Your task to perform on an android device: What's on my calendar today? Image 0: 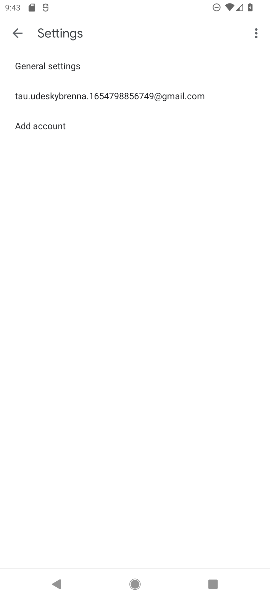
Step 0: drag from (143, 303) to (134, 120)
Your task to perform on an android device: What's on my calendar today? Image 1: 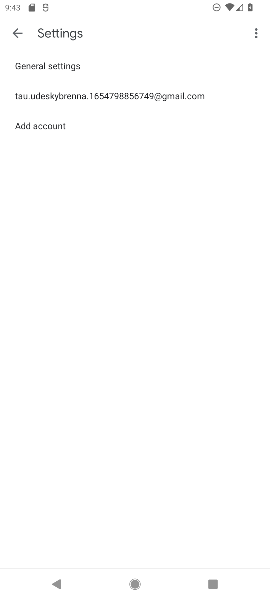
Step 1: press home button
Your task to perform on an android device: What's on my calendar today? Image 2: 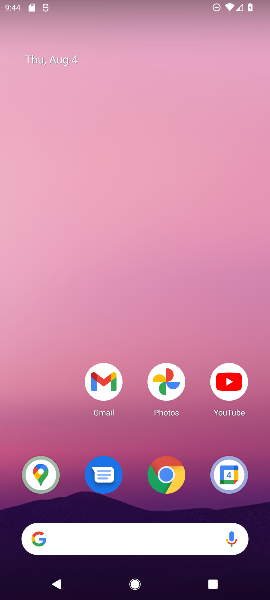
Step 2: drag from (141, 504) to (133, 100)
Your task to perform on an android device: What's on my calendar today? Image 3: 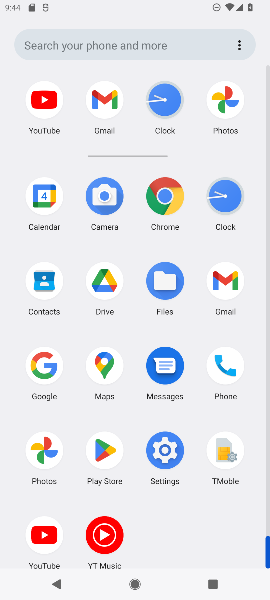
Step 3: drag from (132, 535) to (132, 165)
Your task to perform on an android device: What's on my calendar today? Image 4: 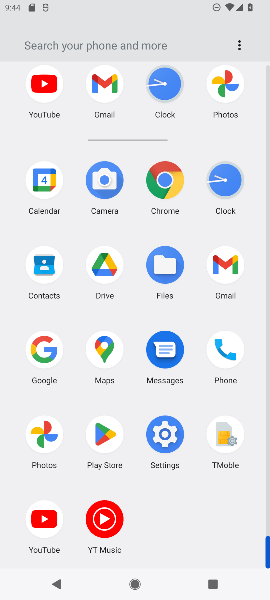
Step 4: click (51, 176)
Your task to perform on an android device: What's on my calendar today? Image 5: 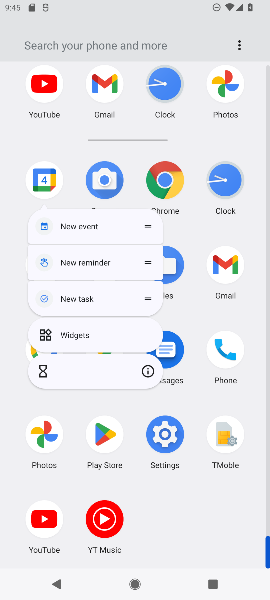
Step 5: click (142, 365)
Your task to perform on an android device: What's on my calendar today? Image 6: 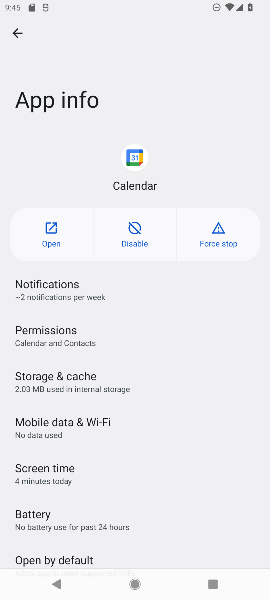
Step 6: click (39, 240)
Your task to perform on an android device: What's on my calendar today? Image 7: 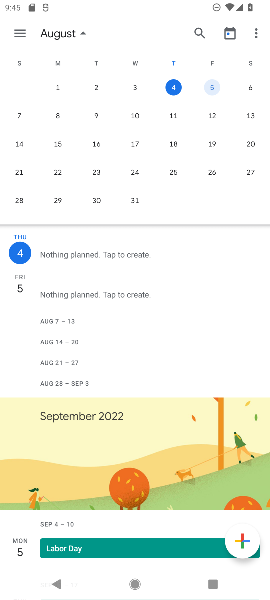
Step 7: drag from (134, 508) to (121, 279)
Your task to perform on an android device: What's on my calendar today? Image 8: 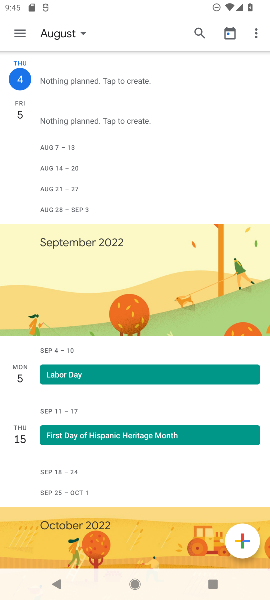
Step 8: drag from (146, 444) to (132, 216)
Your task to perform on an android device: What's on my calendar today? Image 9: 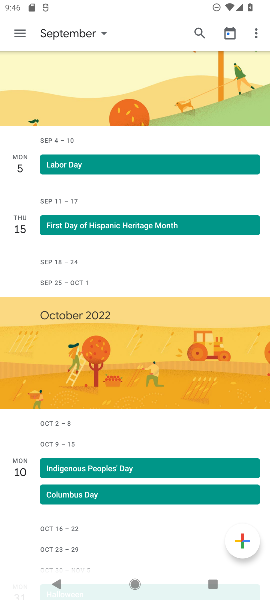
Step 9: click (234, 29)
Your task to perform on an android device: What's on my calendar today? Image 10: 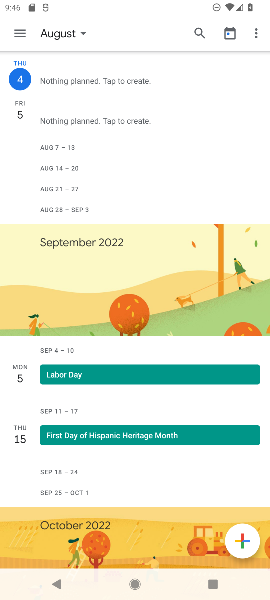
Step 10: click (67, 32)
Your task to perform on an android device: What's on my calendar today? Image 11: 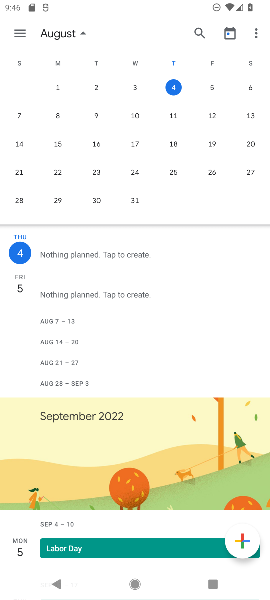
Step 11: click (170, 83)
Your task to perform on an android device: What's on my calendar today? Image 12: 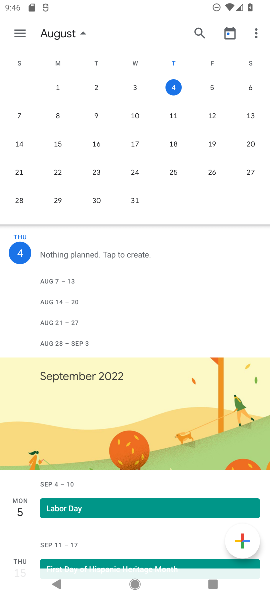
Step 12: task complete